Your task to perform on an android device: move a message to another label in the gmail app Image 0: 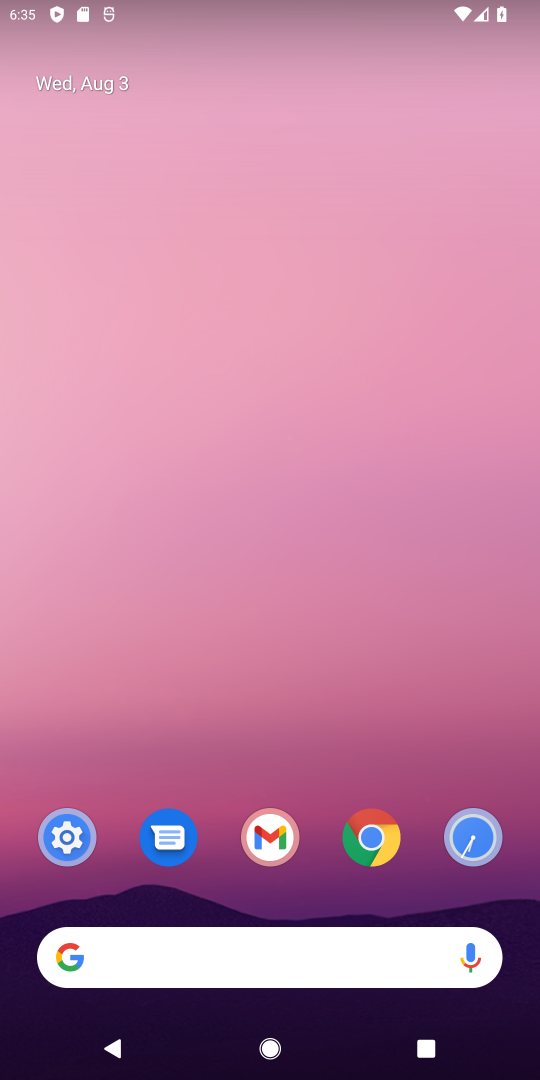
Step 0: press home button
Your task to perform on an android device: move a message to another label in the gmail app Image 1: 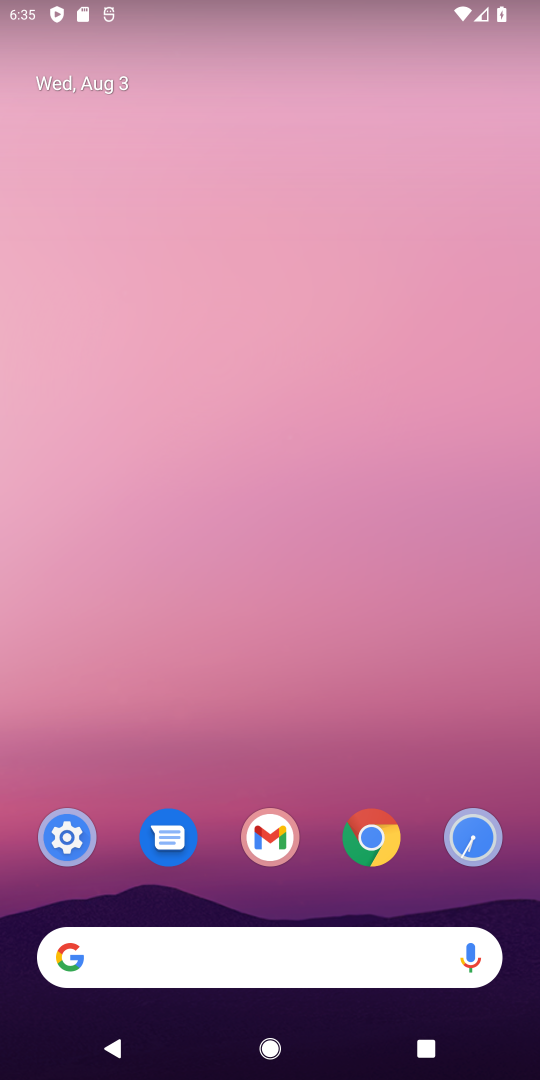
Step 1: drag from (300, 770) to (393, 9)
Your task to perform on an android device: move a message to another label in the gmail app Image 2: 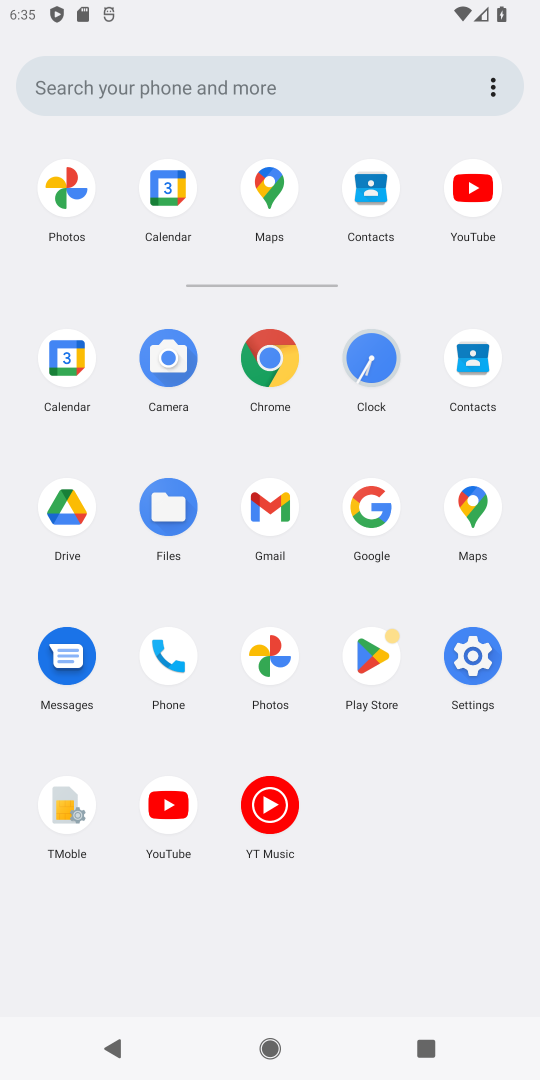
Step 2: click (271, 497)
Your task to perform on an android device: move a message to another label in the gmail app Image 3: 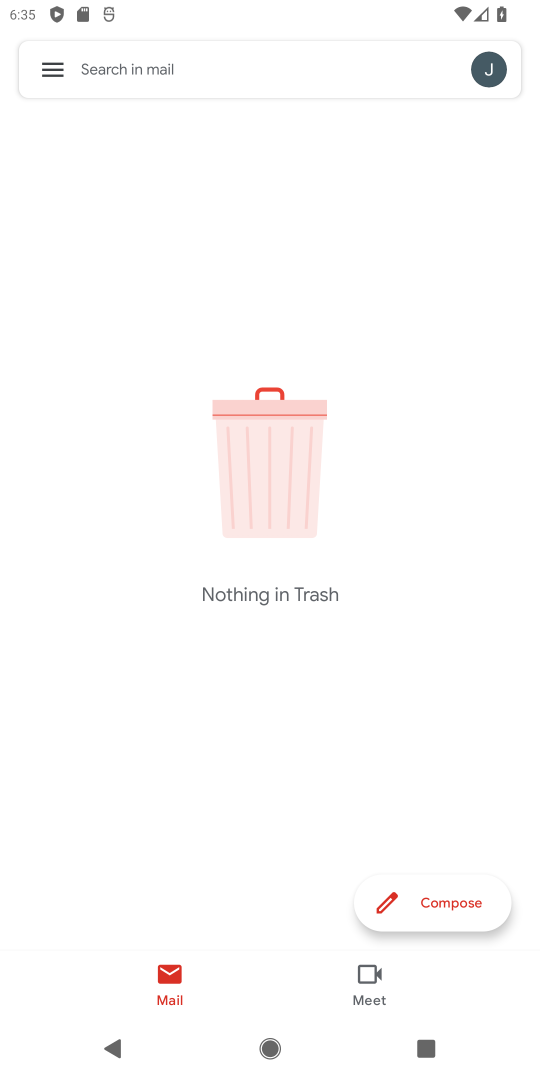
Step 3: click (48, 72)
Your task to perform on an android device: move a message to another label in the gmail app Image 4: 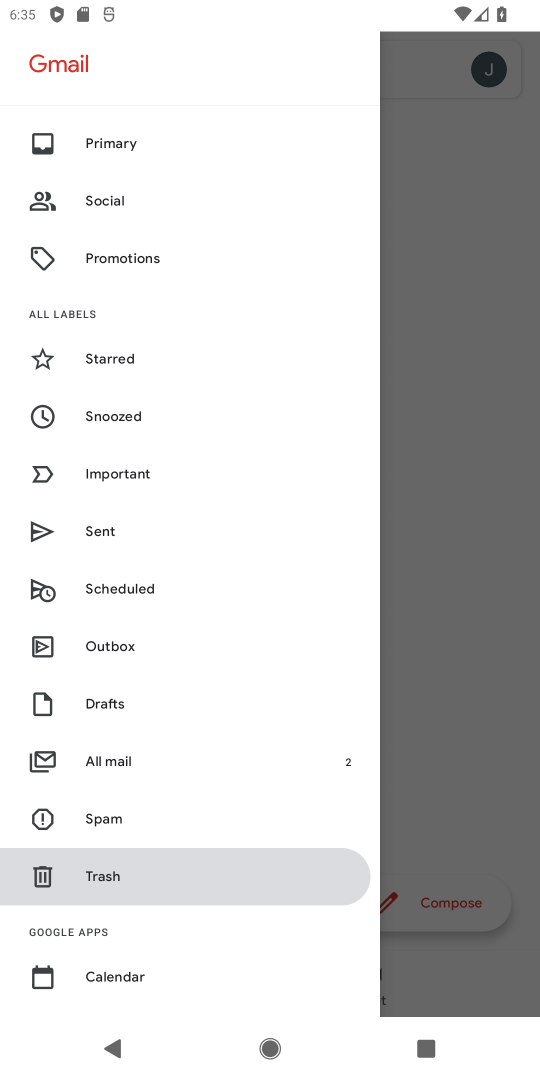
Step 4: click (103, 767)
Your task to perform on an android device: move a message to another label in the gmail app Image 5: 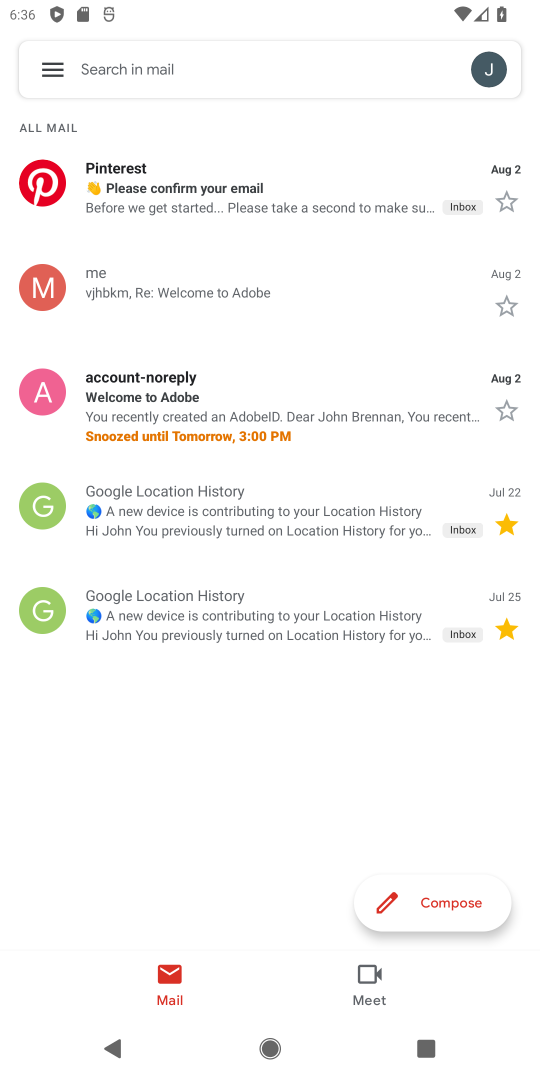
Step 5: click (426, 198)
Your task to perform on an android device: move a message to another label in the gmail app Image 6: 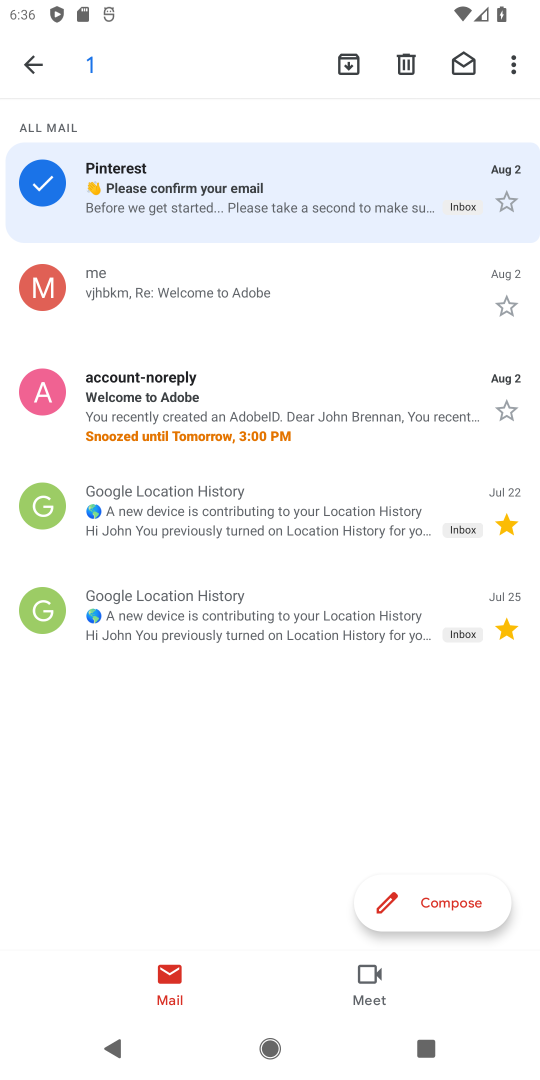
Step 6: click (513, 54)
Your task to perform on an android device: move a message to another label in the gmail app Image 7: 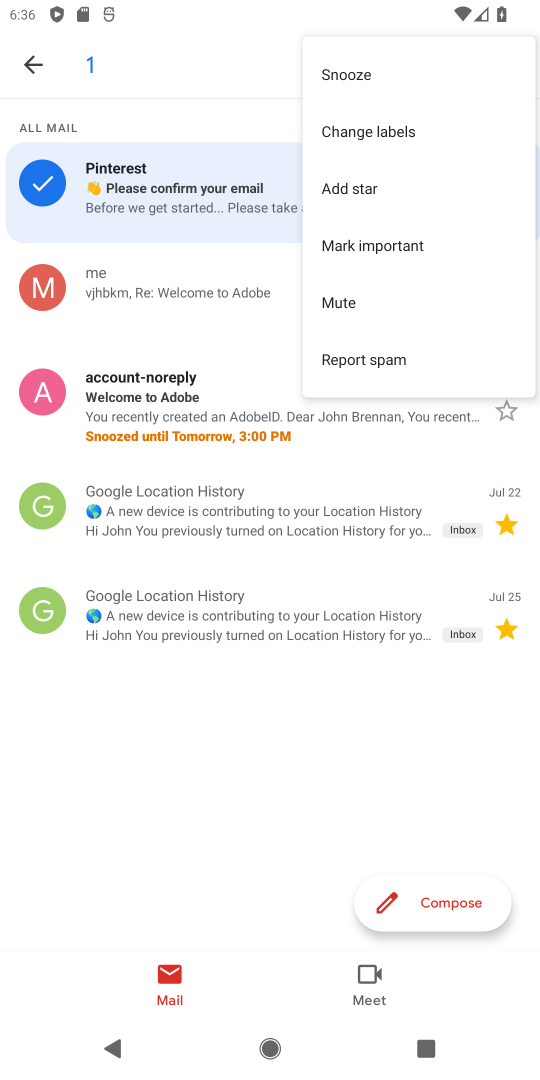
Step 7: click (399, 124)
Your task to perform on an android device: move a message to another label in the gmail app Image 8: 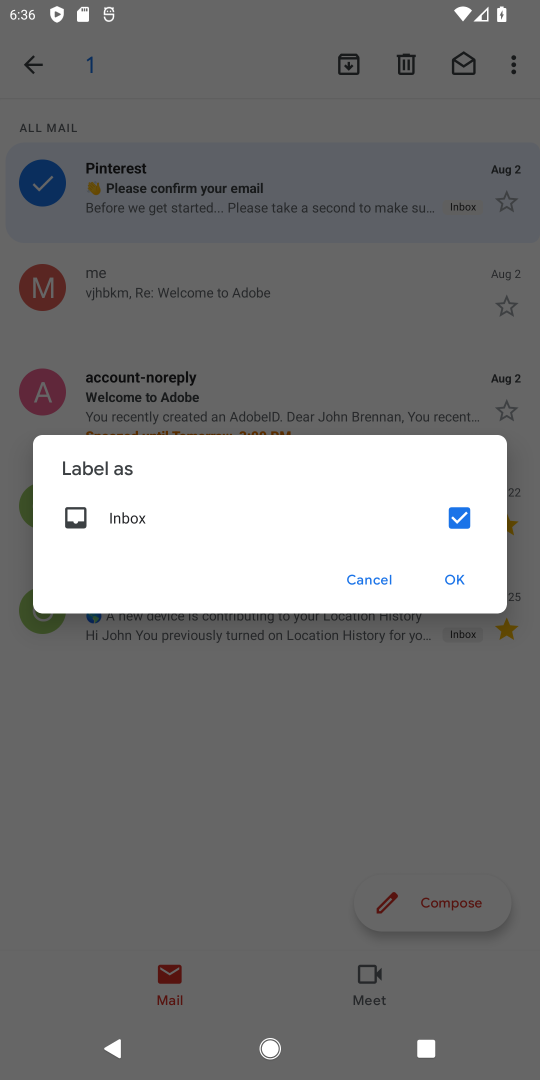
Step 8: click (457, 574)
Your task to perform on an android device: move a message to another label in the gmail app Image 9: 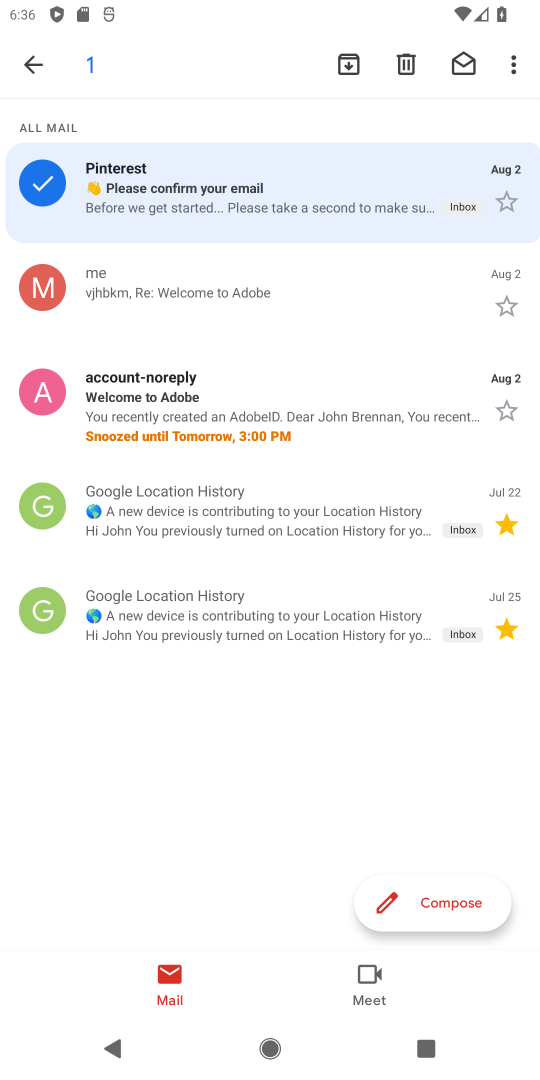
Step 9: task complete